Your task to perform on an android device: Open settings on Google Maps Image 0: 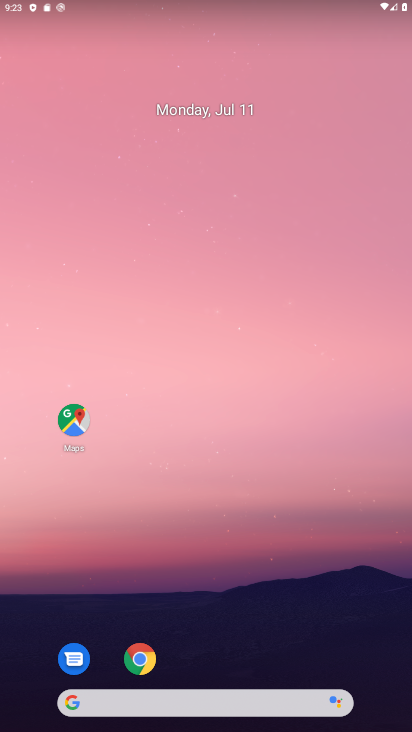
Step 0: drag from (228, 598) to (236, 0)
Your task to perform on an android device: Open settings on Google Maps Image 1: 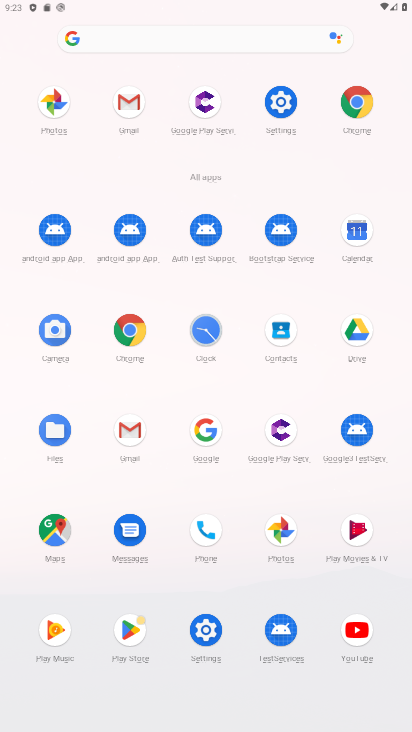
Step 1: click (64, 531)
Your task to perform on an android device: Open settings on Google Maps Image 2: 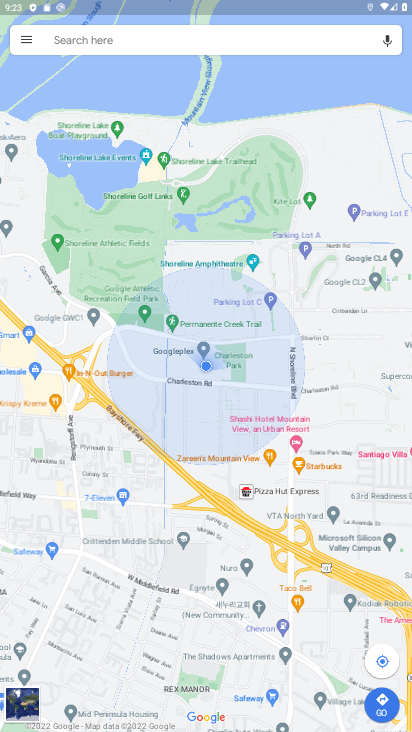
Step 2: click (23, 36)
Your task to perform on an android device: Open settings on Google Maps Image 3: 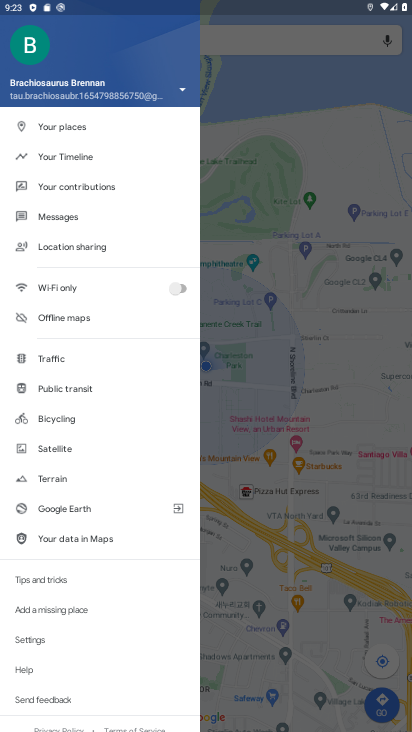
Step 3: click (42, 643)
Your task to perform on an android device: Open settings on Google Maps Image 4: 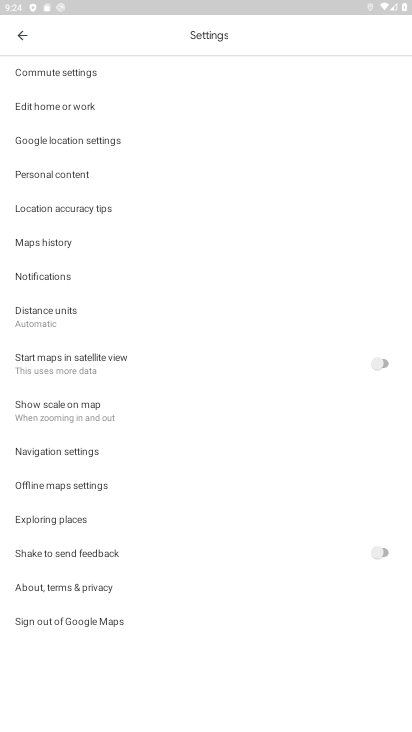
Step 4: task complete